Your task to perform on an android device: turn on the 24-hour format for clock Image 0: 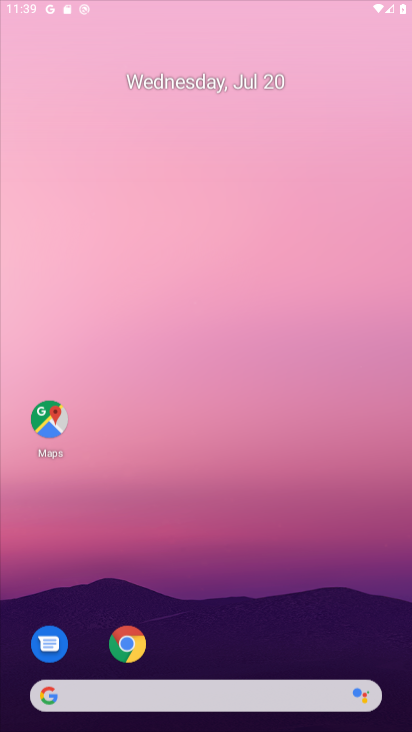
Step 0: click (327, 424)
Your task to perform on an android device: turn on the 24-hour format for clock Image 1: 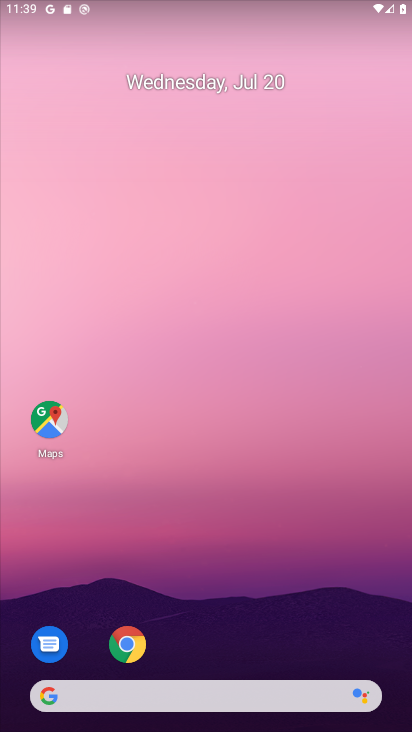
Step 1: drag from (213, 592) to (227, 42)
Your task to perform on an android device: turn on the 24-hour format for clock Image 2: 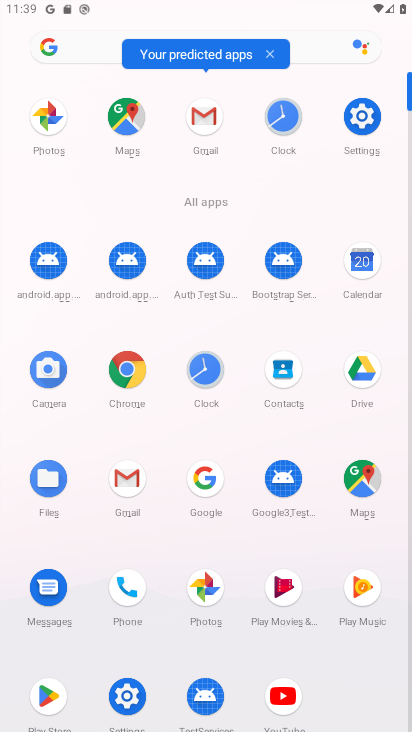
Step 2: click (261, 115)
Your task to perform on an android device: turn on the 24-hour format for clock Image 3: 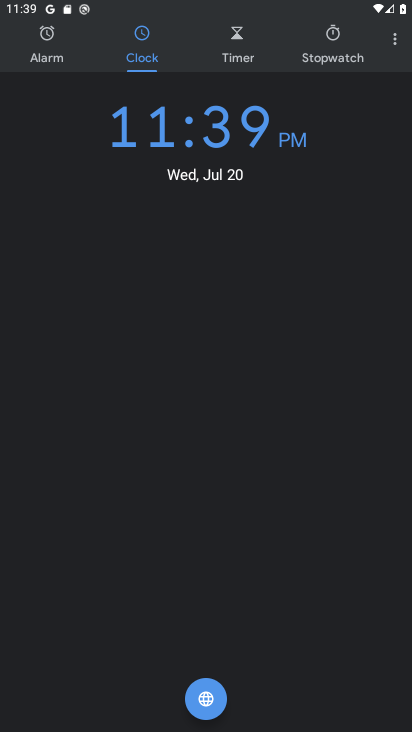
Step 3: click (394, 39)
Your task to perform on an android device: turn on the 24-hour format for clock Image 4: 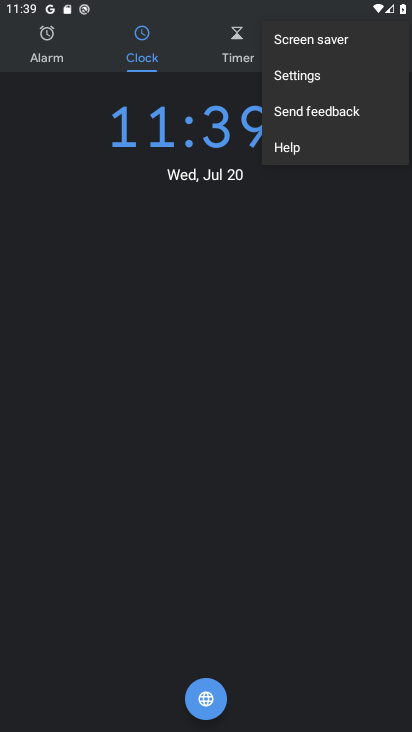
Step 4: click (352, 75)
Your task to perform on an android device: turn on the 24-hour format for clock Image 5: 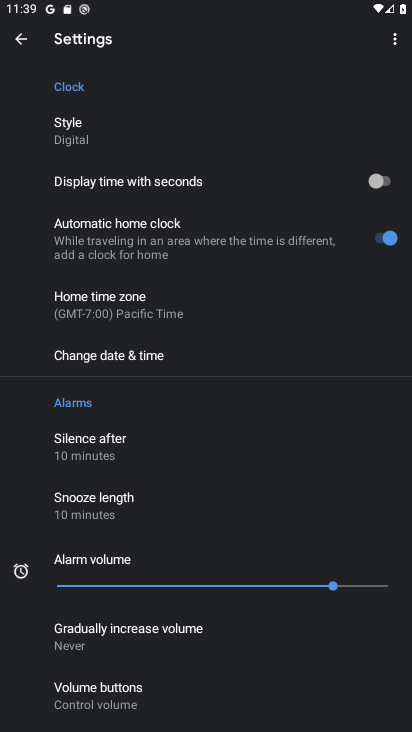
Step 5: click (198, 364)
Your task to perform on an android device: turn on the 24-hour format for clock Image 6: 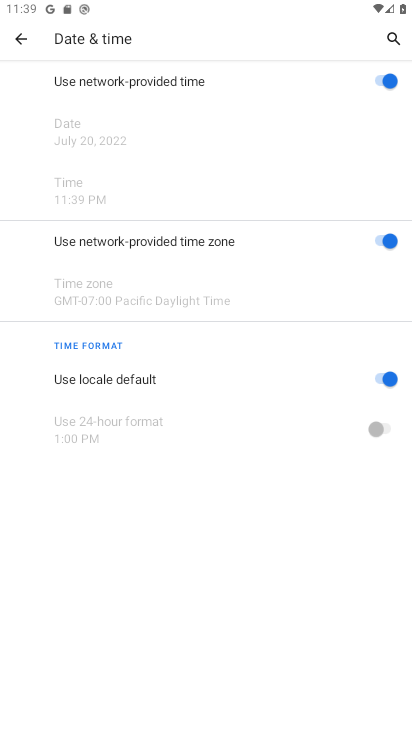
Step 6: click (387, 378)
Your task to perform on an android device: turn on the 24-hour format for clock Image 7: 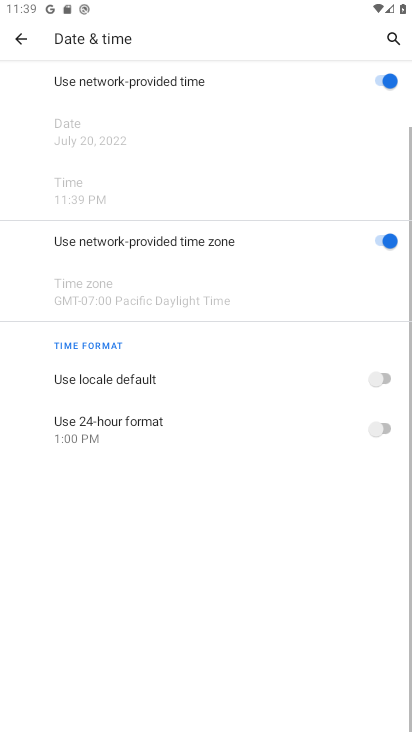
Step 7: click (390, 429)
Your task to perform on an android device: turn on the 24-hour format for clock Image 8: 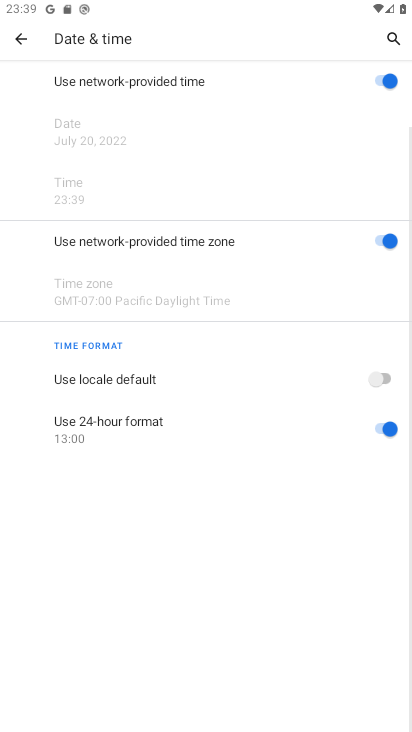
Step 8: task complete